Your task to perform on an android device: Open the web browser Image 0: 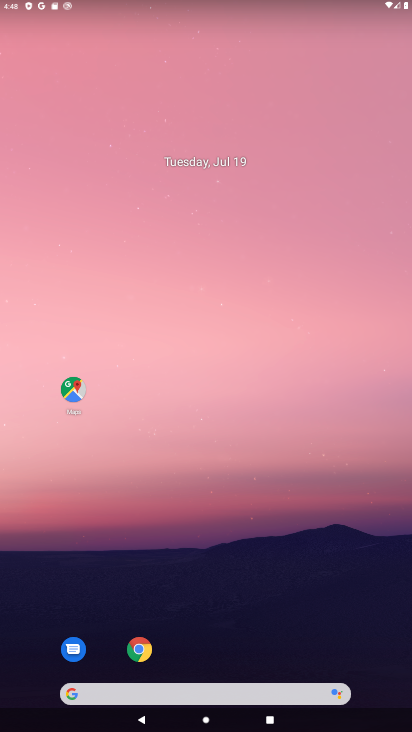
Step 0: press home button
Your task to perform on an android device: Open the web browser Image 1: 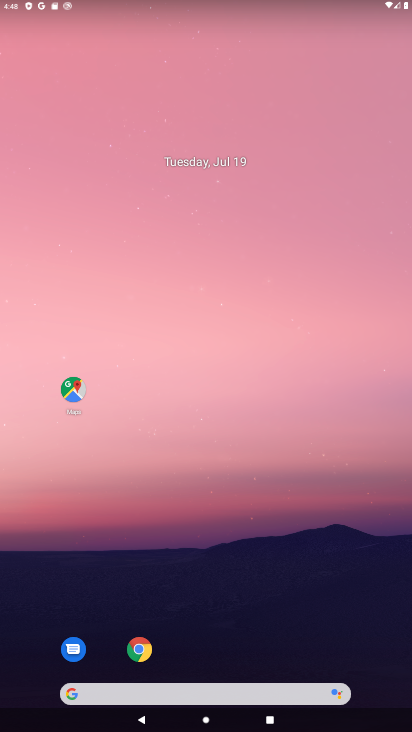
Step 1: click (234, 24)
Your task to perform on an android device: Open the web browser Image 2: 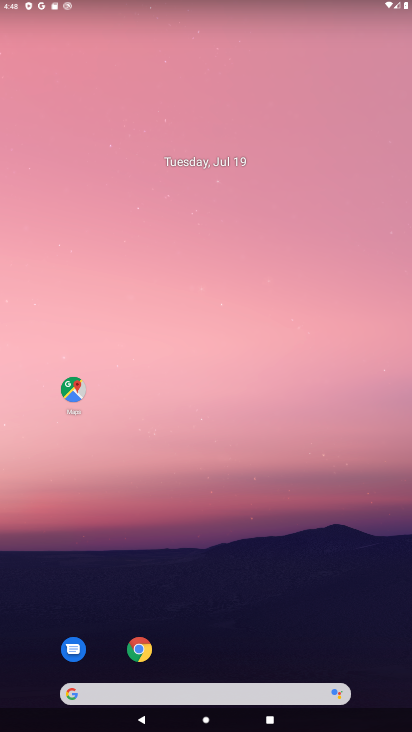
Step 2: click (137, 646)
Your task to perform on an android device: Open the web browser Image 3: 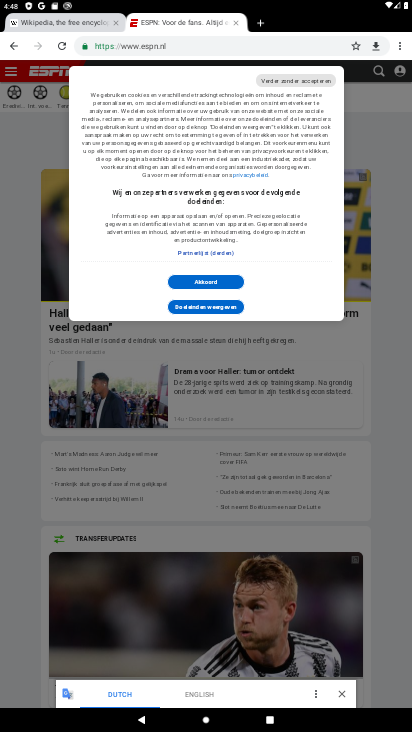
Step 3: click (202, 277)
Your task to perform on an android device: Open the web browser Image 4: 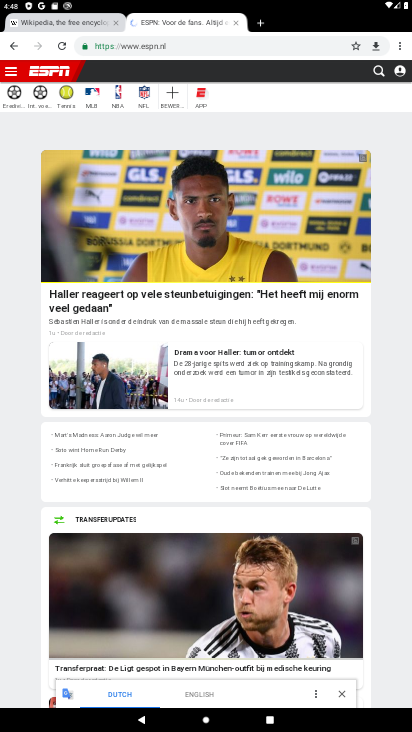
Step 4: click (260, 23)
Your task to perform on an android device: Open the web browser Image 5: 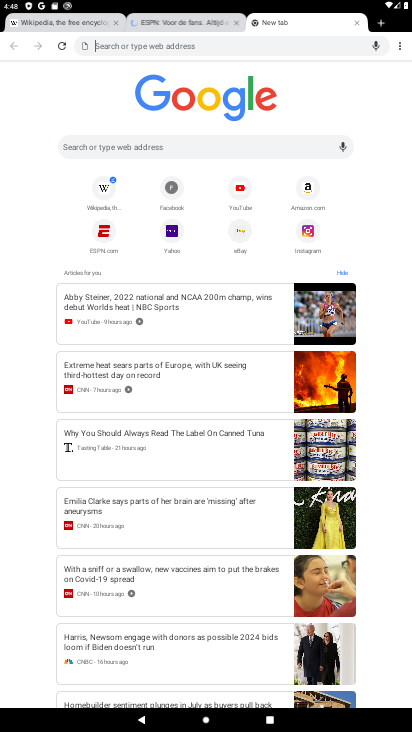
Step 5: task complete